Your task to perform on an android device: turn on translation in the chrome app Image 0: 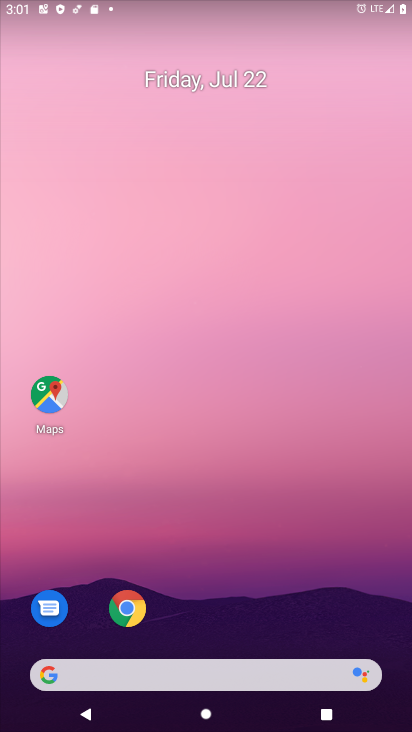
Step 0: click (124, 604)
Your task to perform on an android device: turn on translation in the chrome app Image 1: 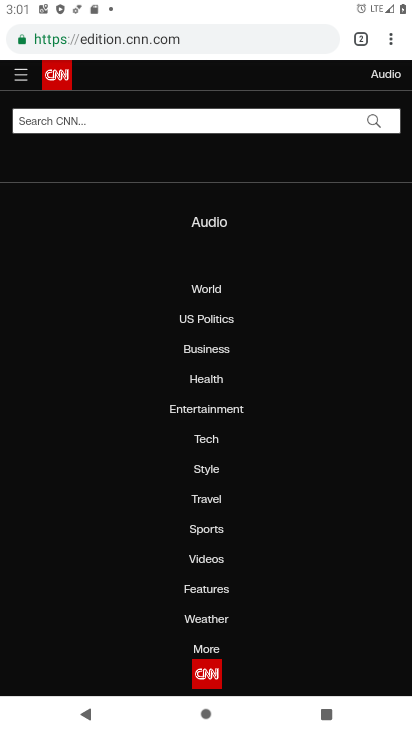
Step 1: click (397, 35)
Your task to perform on an android device: turn on translation in the chrome app Image 2: 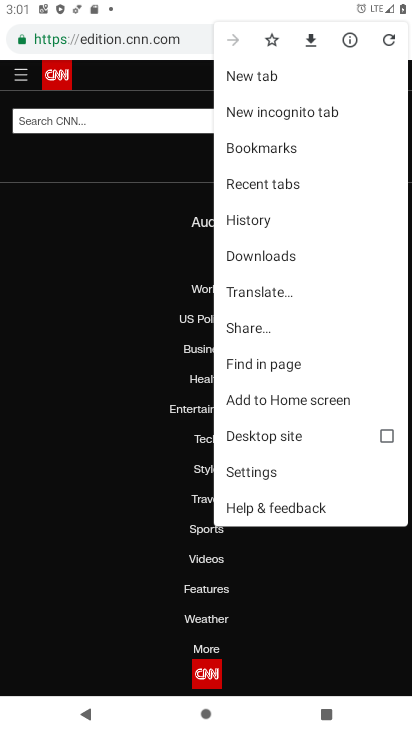
Step 2: click (262, 475)
Your task to perform on an android device: turn on translation in the chrome app Image 3: 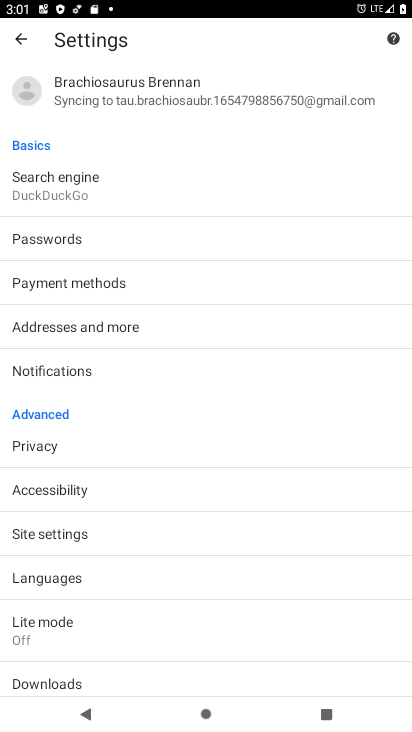
Step 3: click (92, 568)
Your task to perform on an android device: turn on translation in the chrome app Image 4: 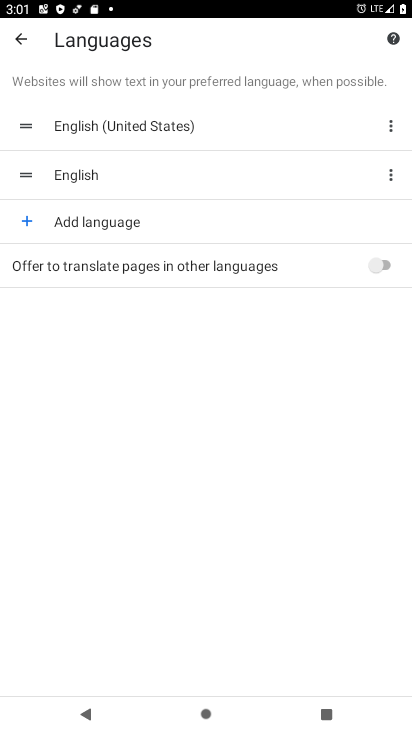
Step 4: click (364, 271)
Your task to perform on an android device: turn on translation in the chrome app Image 5: 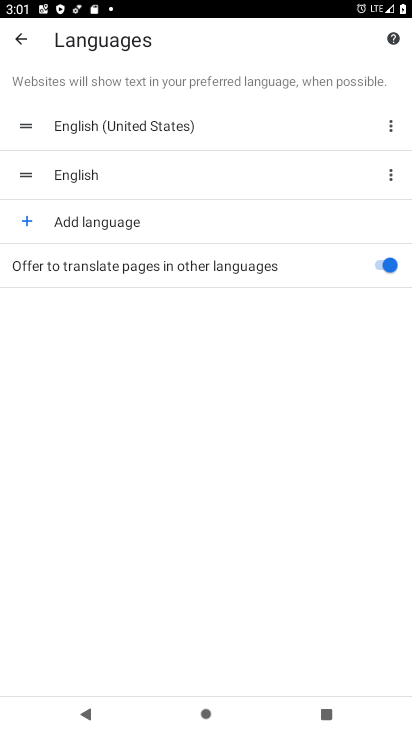
Step 5: task complete